Your task to perform on an android device: Go to Yahoo.com Image 0: 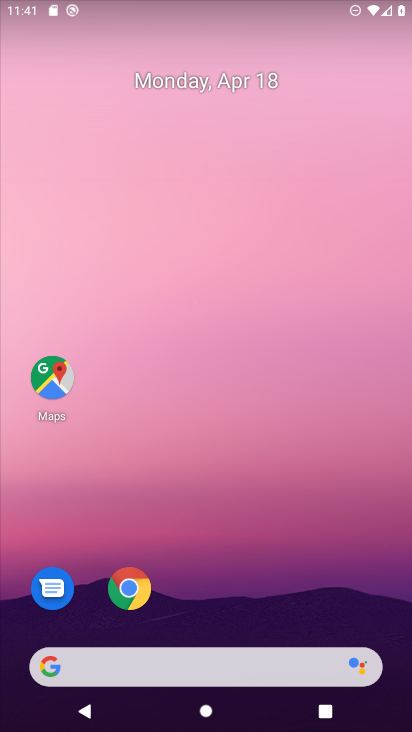
Step 0: drag from (337, 559) to (180, 97)
Your task to perform on an android device: Go to Yahoo.com Image 1: 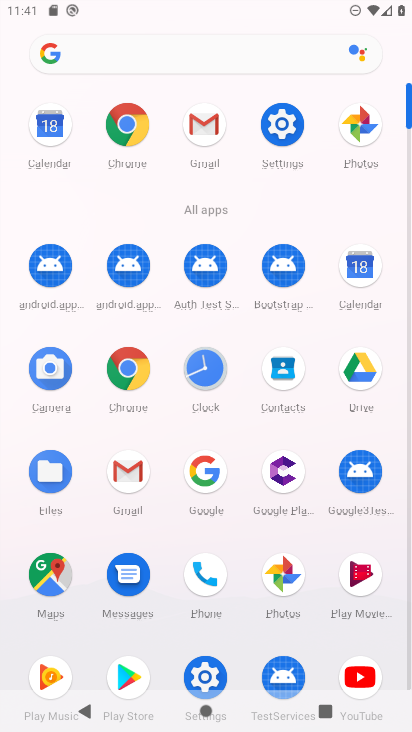
Step 1: click (124, 365)
Your task to perform on an android device: Go to Yahoo.com Image 2: 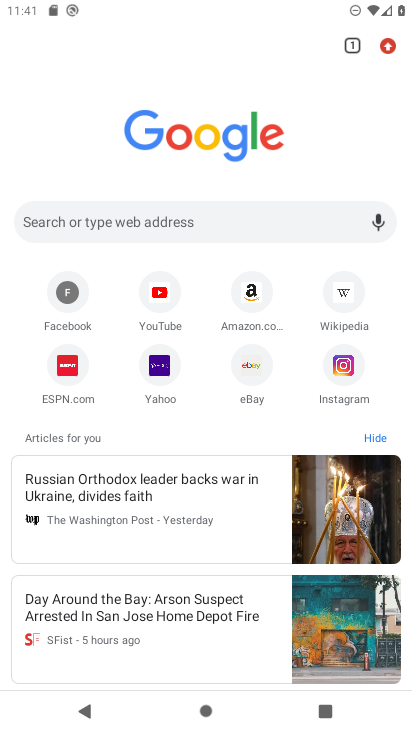
Step 2: click (151, 367)
Your task to perform on an android device: Go to Yahoo.com Image 3: 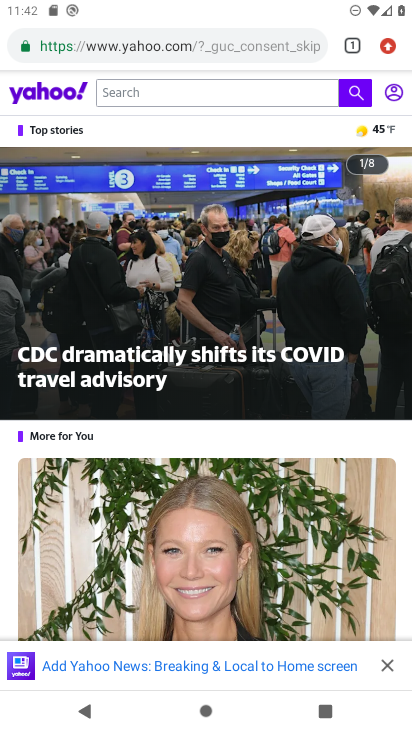
Step 3: task complete